Your task to perform on an android device: Open Maps and search for coffee Image 0: 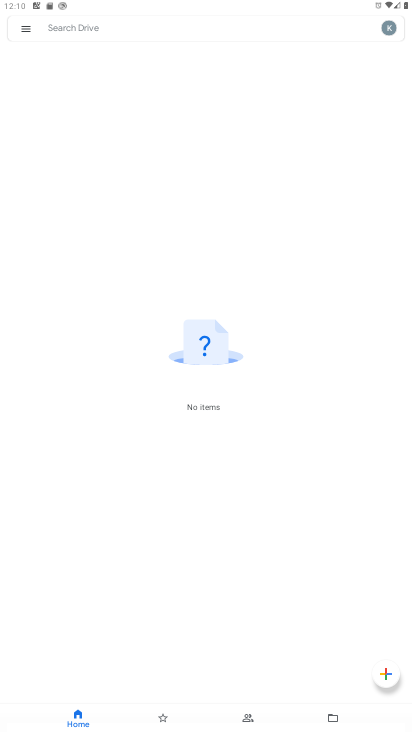
Step 0: press home button
Your task to perform on an android device: Open Maps and search for coffee Image 1: 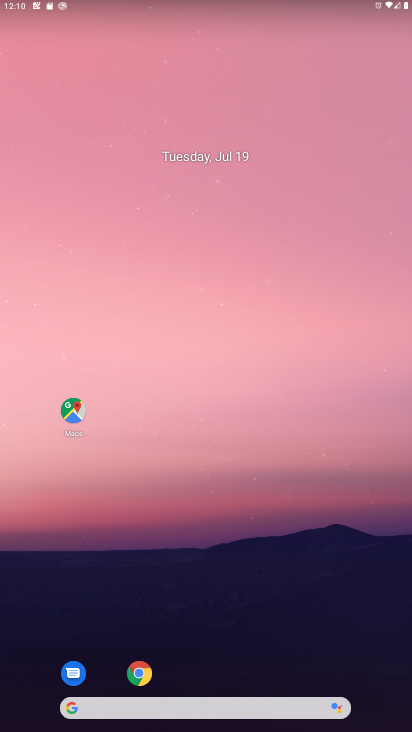
Step 1: click (76, 424)
Your task to perform on an android device: Open Maps and search for coffee Image 2: 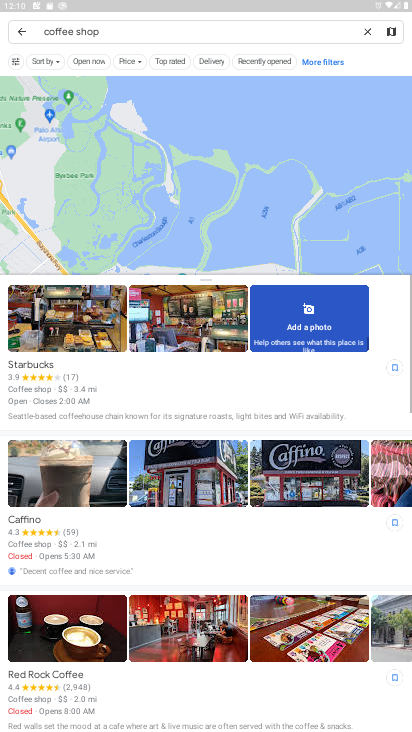
Step 2: click (366, 36)
Your task to perform on an android device: Open Maps and search for coffee Image 3: 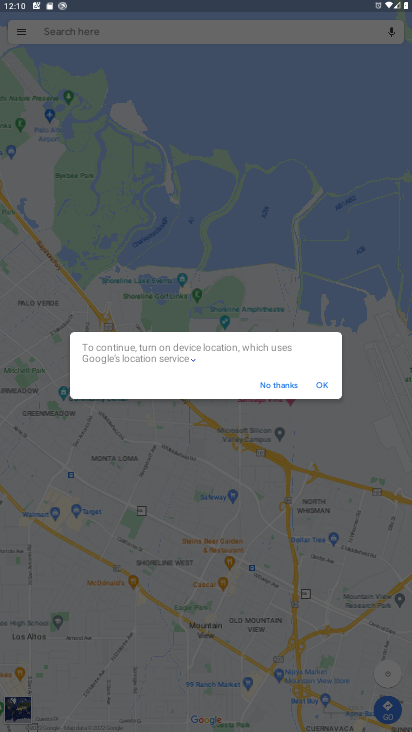
Step 3: click (287, 390)
Your task to perform on an android device: Open Maps and search for coffee Image 4: 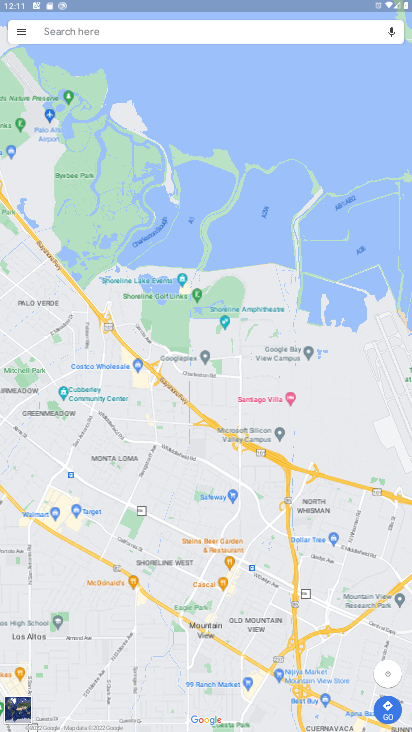
Step 4: click (115, 29)
Your task to perform on an android device: Open Maps and search for coffee Image 5: 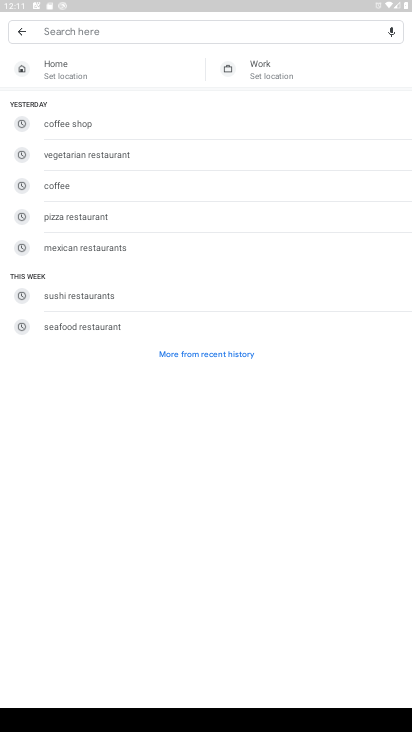
Step 5: type "coffee"
Your task to perform on an android device: Open Maps and search for coffee Image 6: 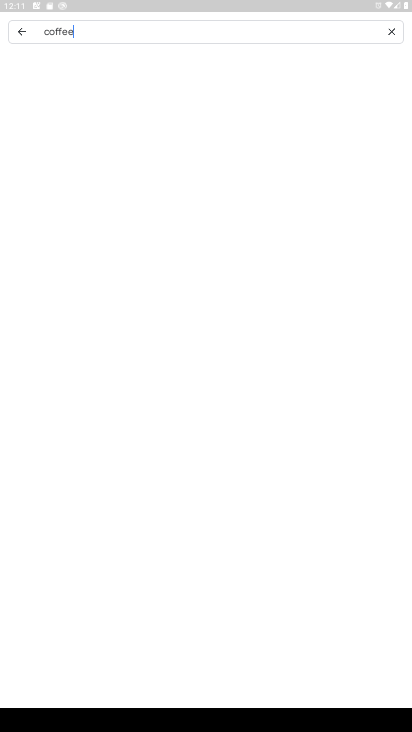
Step 6: type ""
Your task to perform on an android device: Open Maps and search for coffee Image 7: 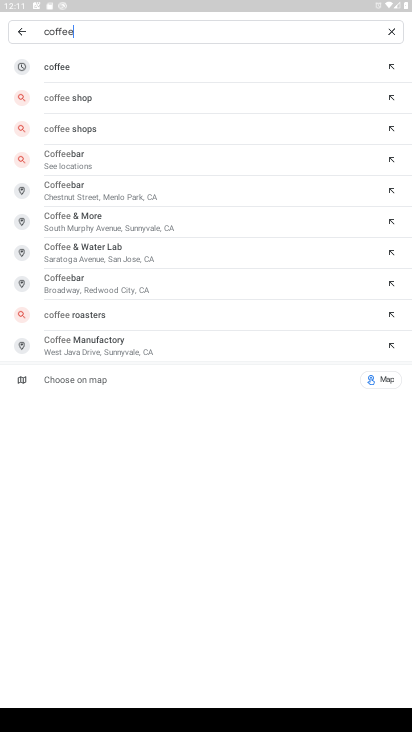
Step 7: click (104, 62)
Your task to perform on an android device: Open Maps and search for coffee Image 8: 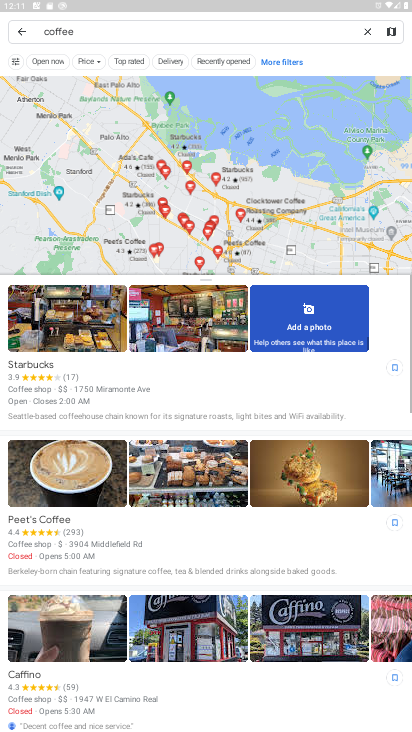
Step 8: task complete